Your task to perform on an android device: turn on translation in the chrome app Image 0: 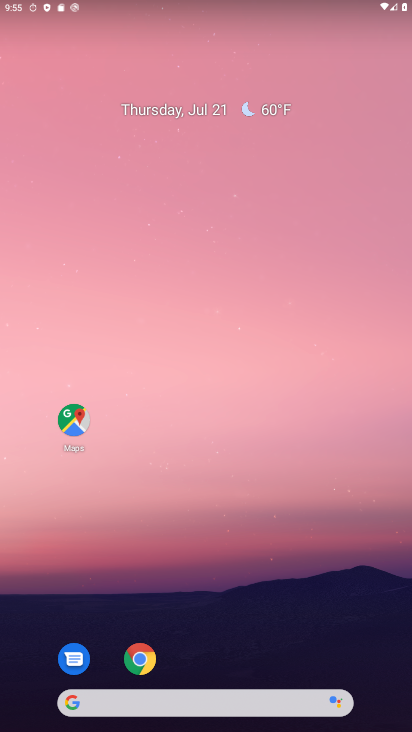
Step 0: click (147, 662)
Your task to perform on an android device: turn on translation in the chrome app Image 1: 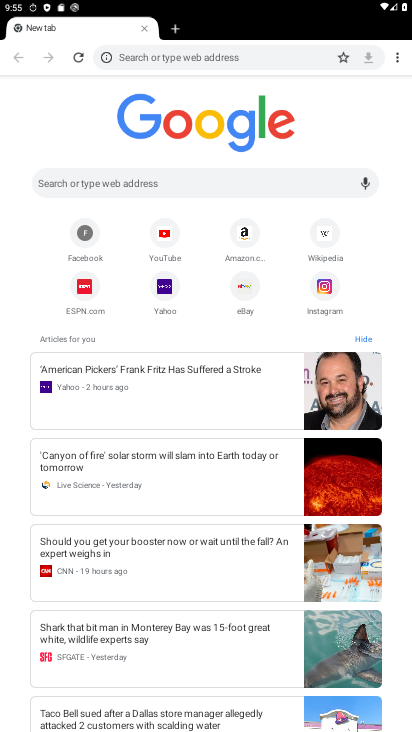
Step 1: click (397, 49)
Your task to perform on an android device: turn on translation in the chrome app Image 2: 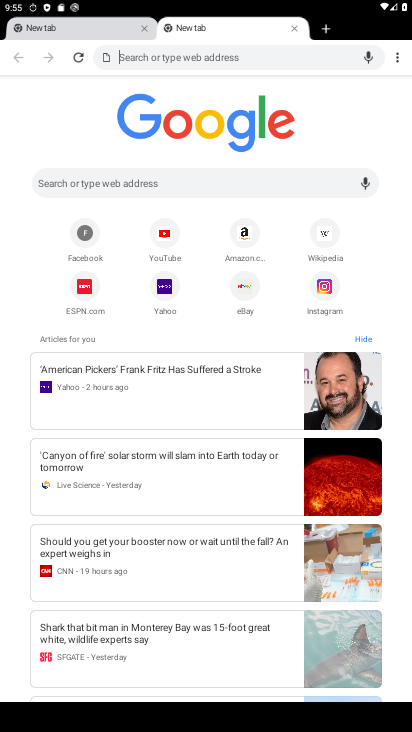
Step 2: click (393, 60)
Your task to perform on an android device: turn on translation in the chrome app Image 3: 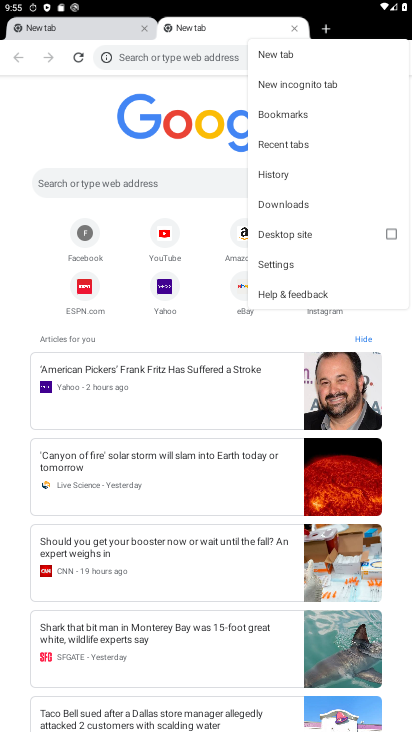
Step 3: click (281, 265)
Your task to perform on an android device: turn on translation in the chrome app Image 4: 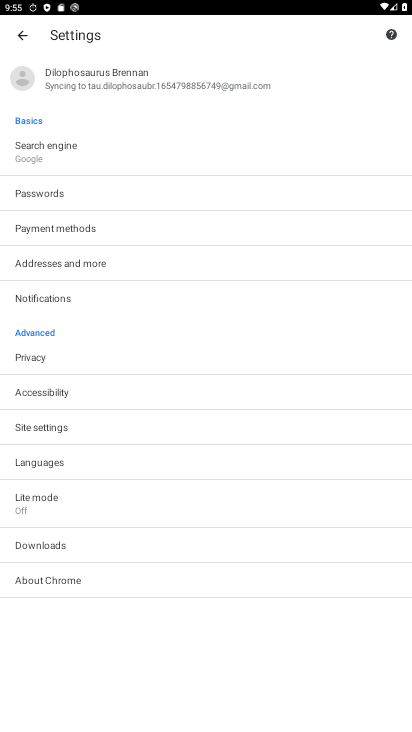
Step 4: click (18, 462)
Your task to perform on an android device: turn on translation in the chrome app Image 5: 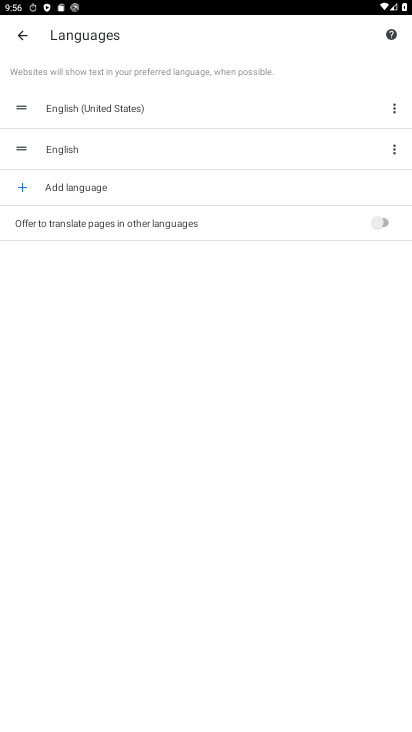
Step 5: click (383, 225)
Your task to perform on an android device: turn on translation in the chrome app Image 6: 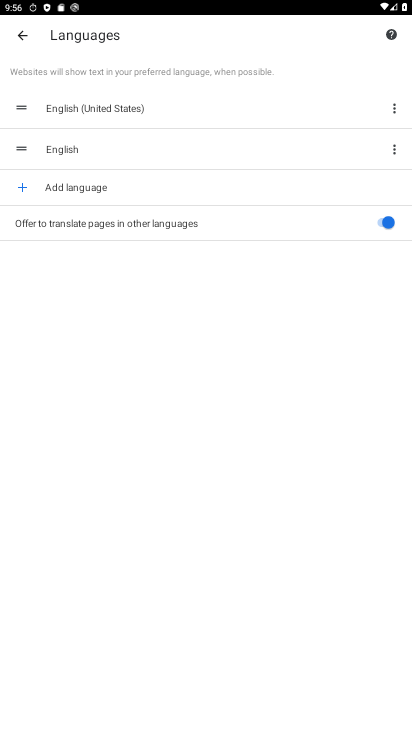
Step 6: task complete